Your task to perform on an android device: Open ESPN.com Image 0: 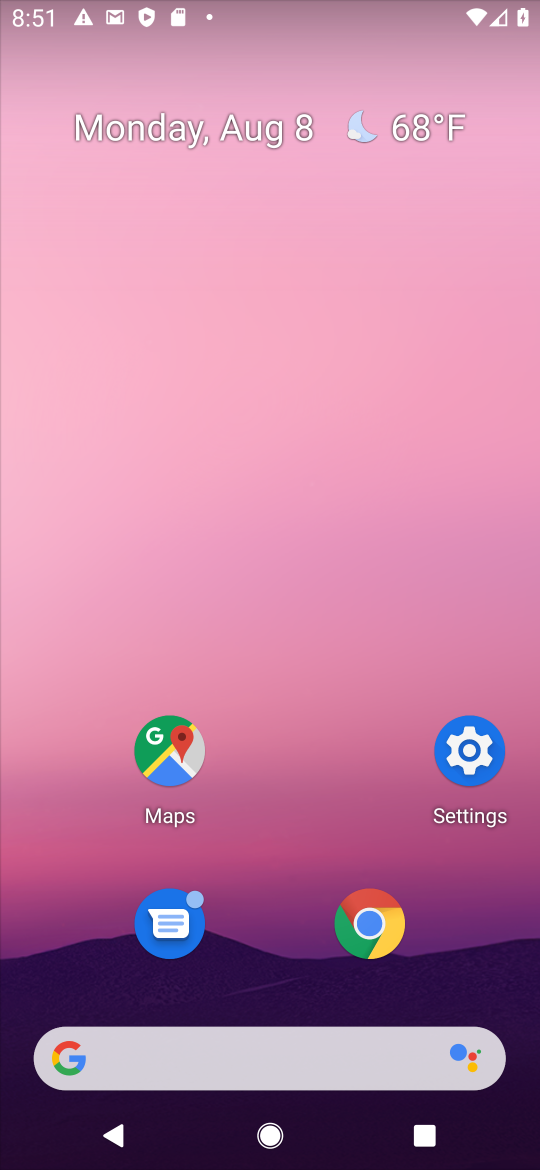
Step 0: press home button
Your task to perform on an android device: Open ESPN.com Image 1: 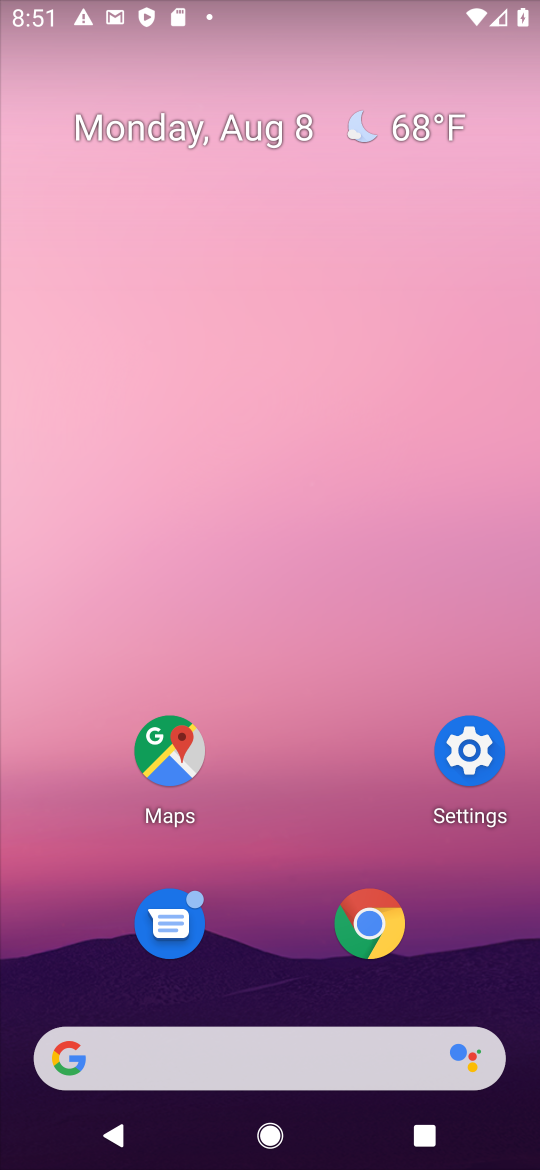
Step 1: click (370, 922)
Your task to perform on an android device: Open ESPN.com Image 2: 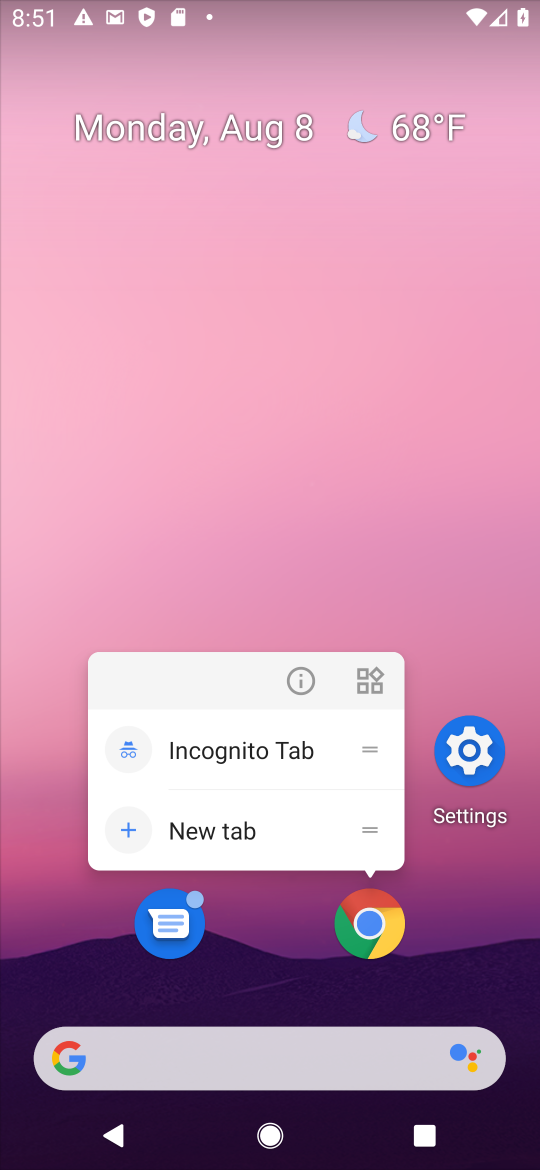
Step 2: click (370, 926)
Your task to perform on an android device: Open ESPN.com Image 3: 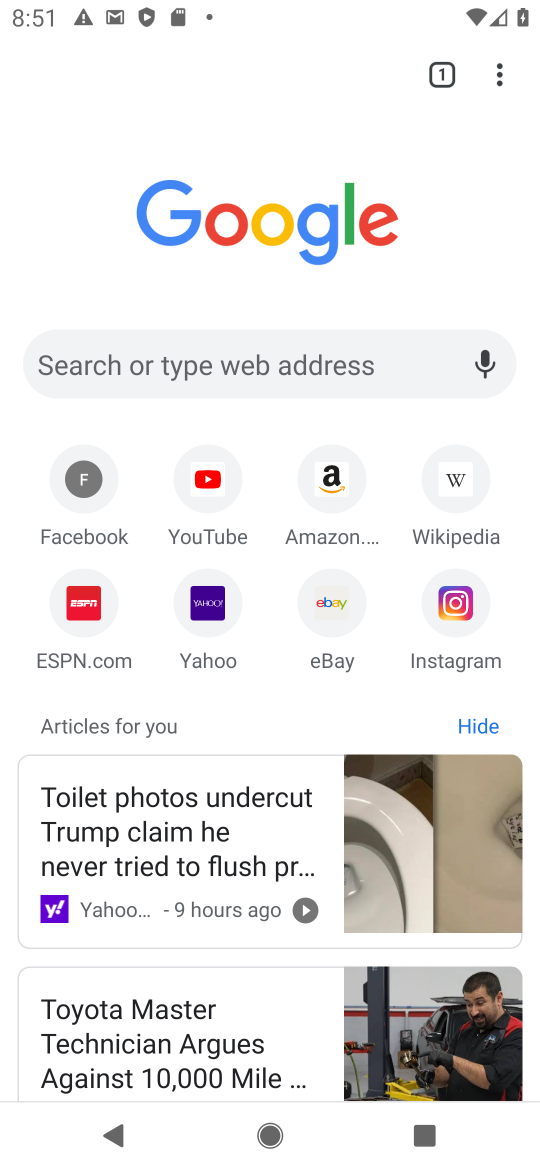
Step 3: click (90, 603)
Your task to perform on an android device: Open ESPN.com Image 4: 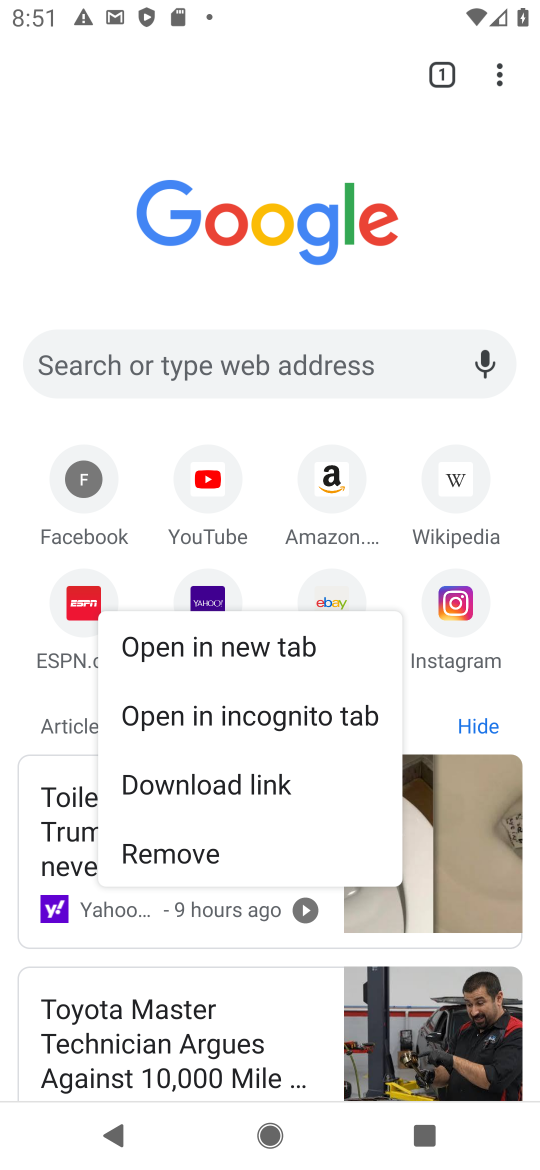
Step 4: click (70, 592)
Your task to perform on an android device: Open ESPN.com Image 5: 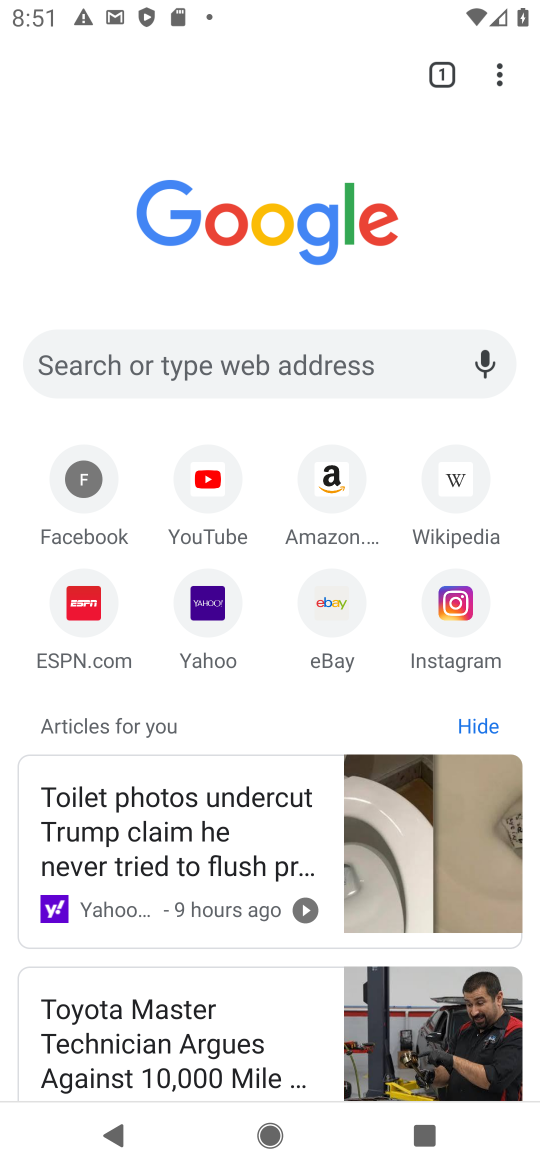
Step 5: click (75, 609)
Your task to perform on an android device: Open ESPN.com Image 6: 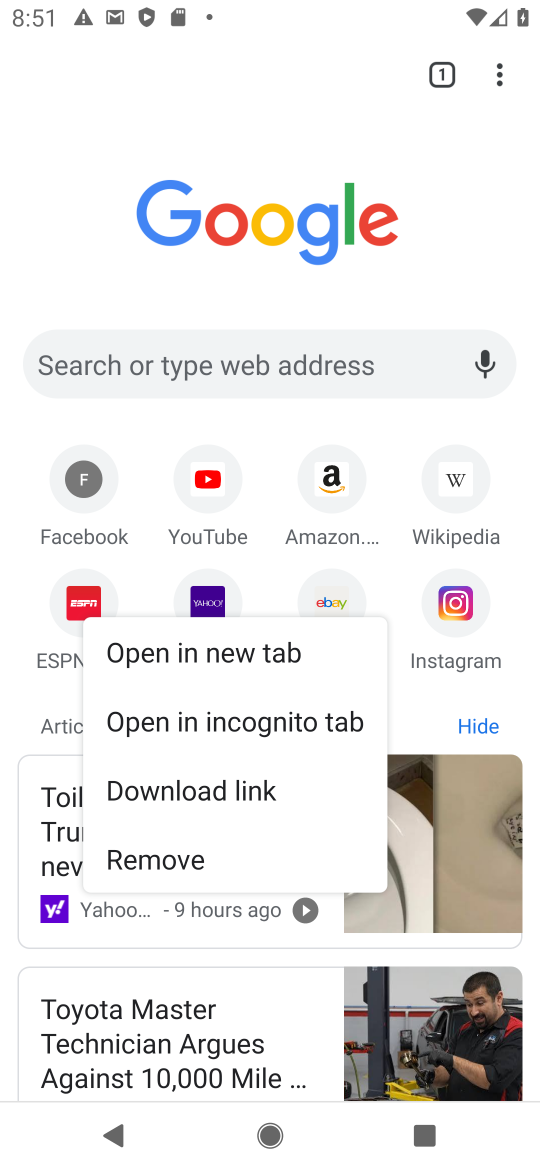
Step 6: click (85, 594)
Your task to perform on an android device: Open ESPN.com Image 7: 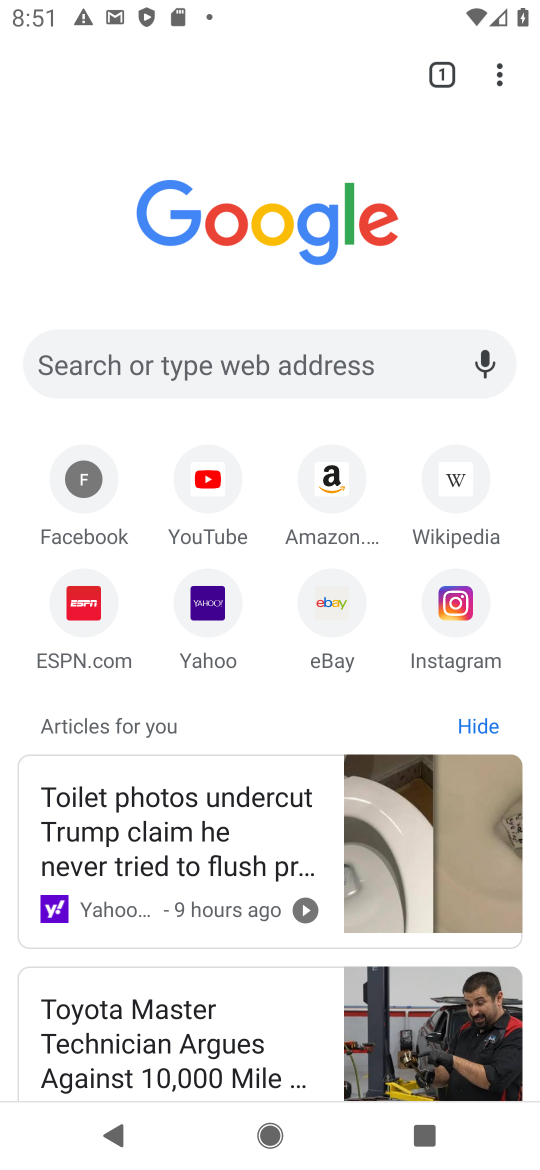
Step 7: click (87, 605)
Your task to perform on an android device: Open ESPN.com Image 8: 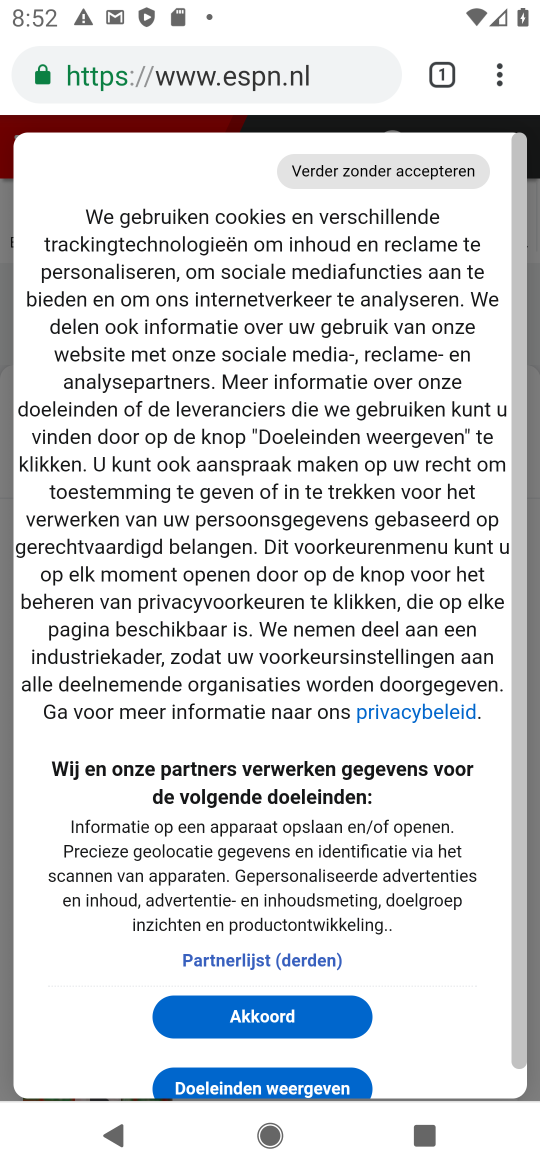
Step 8: click (216, 1028)
Your task to perform on an android device: Open ESPN.com Image 9: 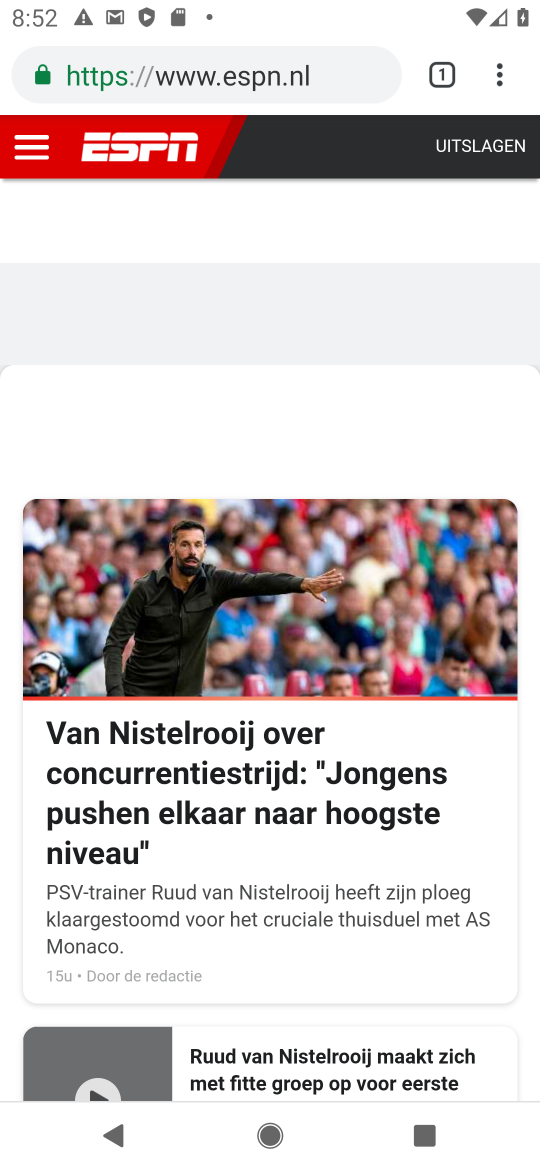
Step 9: task complete